Your task to perform on an android device: move an email to a new category in the gmail app Image 0: 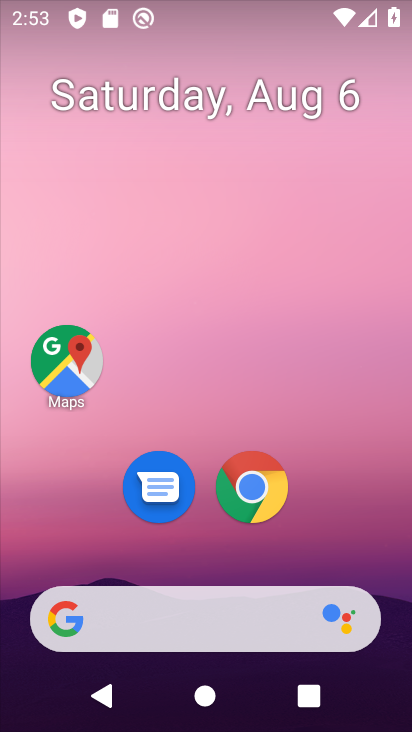
Step 0: drag from (246, 620) to (214, 200)
Your task to perform on an android device: move an email to a new category in the gmail app Image 1: 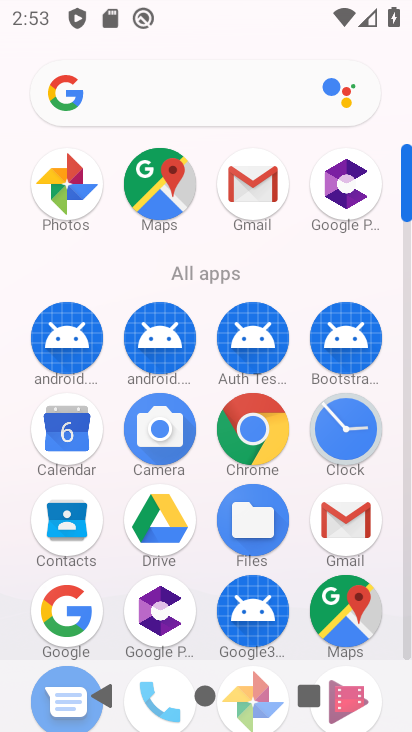
Step 1: click (340, 524)
Your task to perform on an android device: move an email to a new category in the gmail app Image 2: 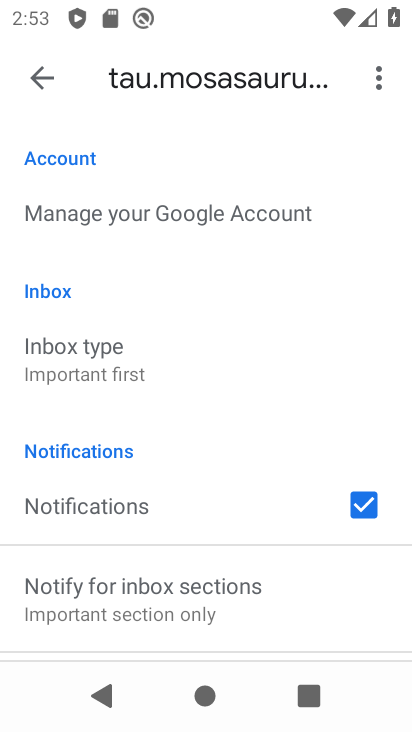
Step 2: click (28, 97)
Your task to perform on an android device: move an email to a new category in the gmail app Image 3: 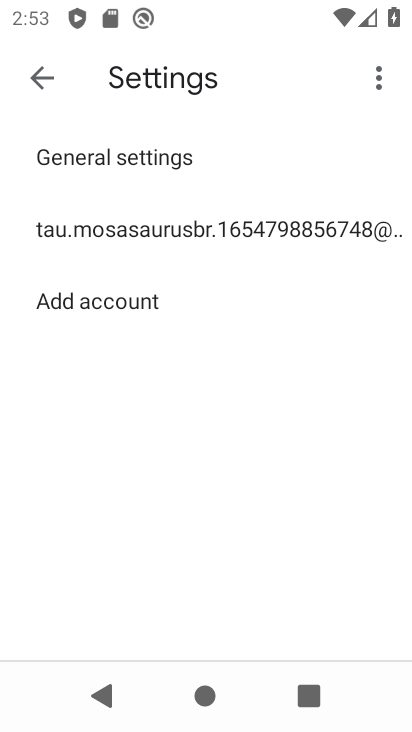
Step 3: click (32, 88)
Your task to perform on an android device: move an email to a new category in the gmail app Image 4: 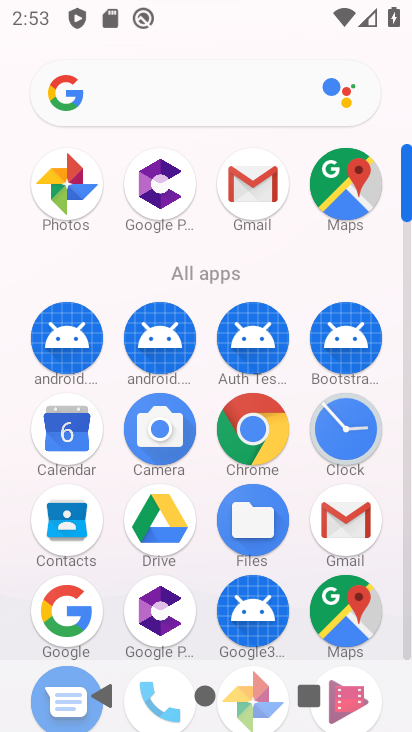
Step 4: click (337, 536)
Your task to perform on an android device: move an email to a new category in the gmail app Image 5: 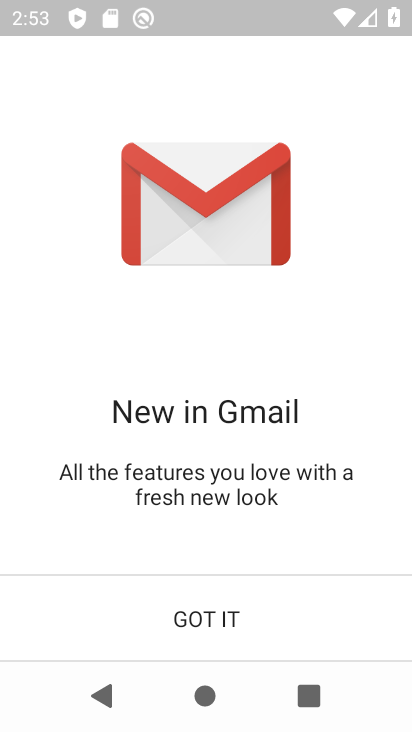
Step 5: drag from (245, 617) to (303, 617)
Your task to perform on an android device: move an email to a new category in the gmail app Image 6: 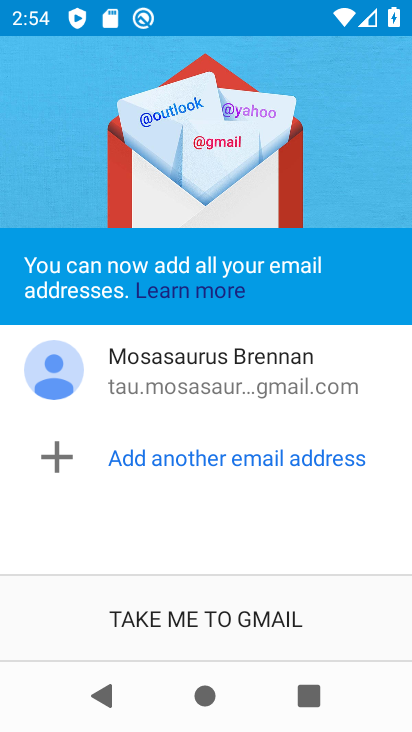
Step 6: click (264, 614)
Your task to perform on an android device: move an email to a new category in the gmail app Image 7: 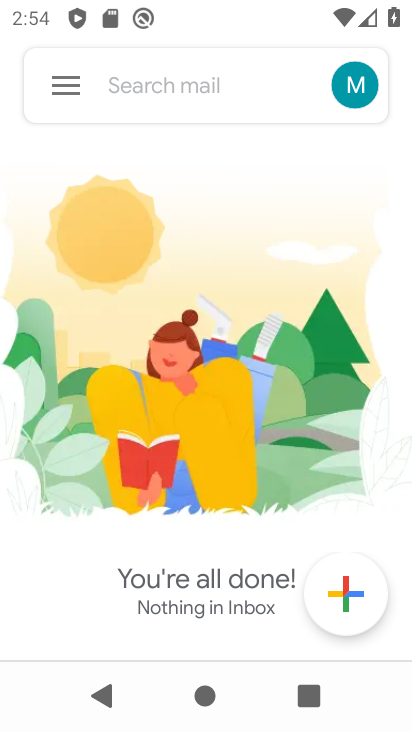
Step 7: click (70, 73)
Your task to perform on an android device: move an email to a new category in the gmail app Image 8: 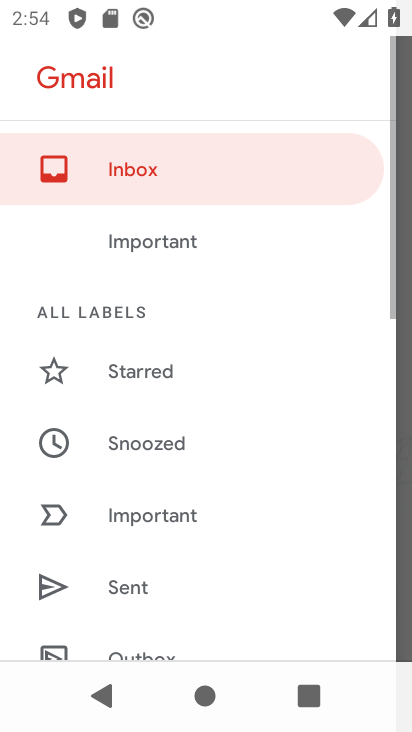
Step 8: drag from (155, 525) to (170, 63)
Your task to perform on an android device: move an email to a new category in the gmail app Image 9: 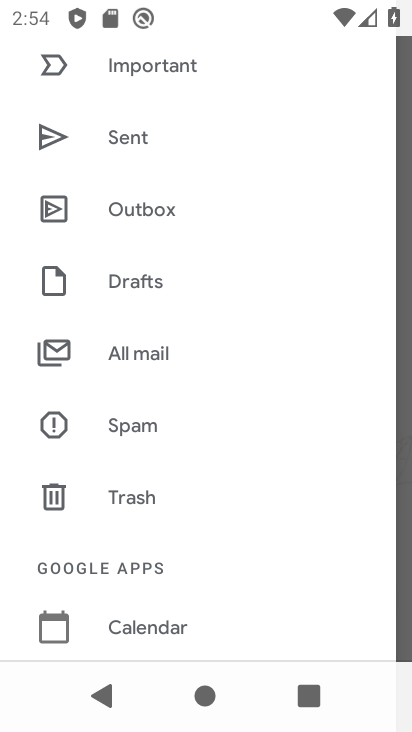
Step 9: click (145, 347)
Your task to perform on an android device: move an email to a new category in the gmail app Image 10: 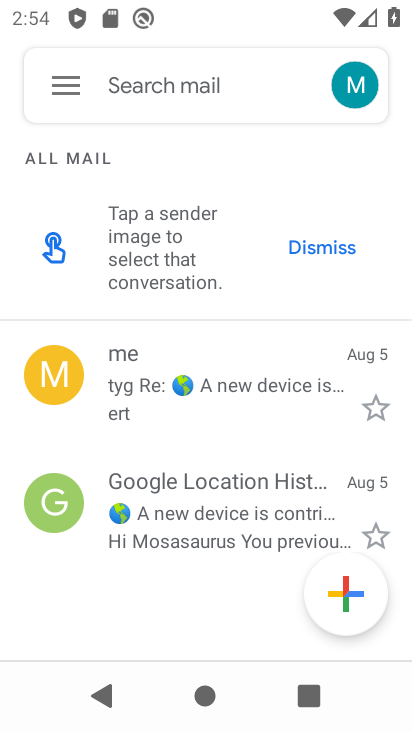
Step 10: click (51, 372)
Your task to perform on an android device: move an email to a new category in the gmail app Image 11: 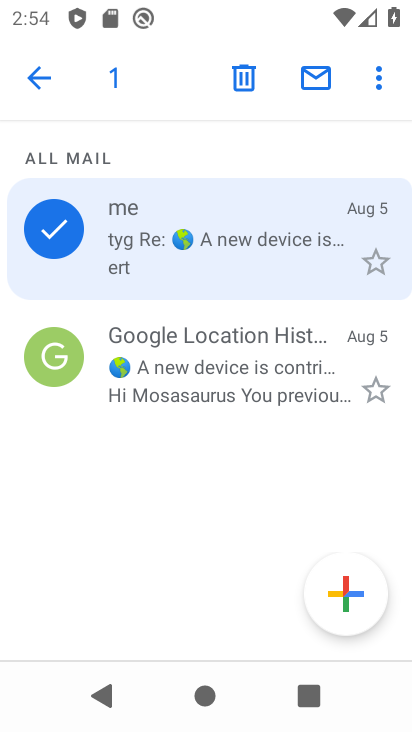
Step 11: click (380, 78)
Your task to perform on an android device: move an email to a new category in the gmail app Image 12: 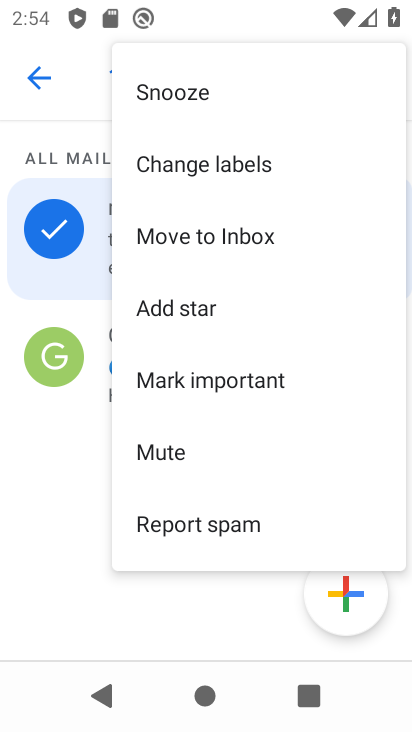
Step 12: click (224, 236)
Your task to perform on an android device: move an email to a new category in the gmail app Image 13: 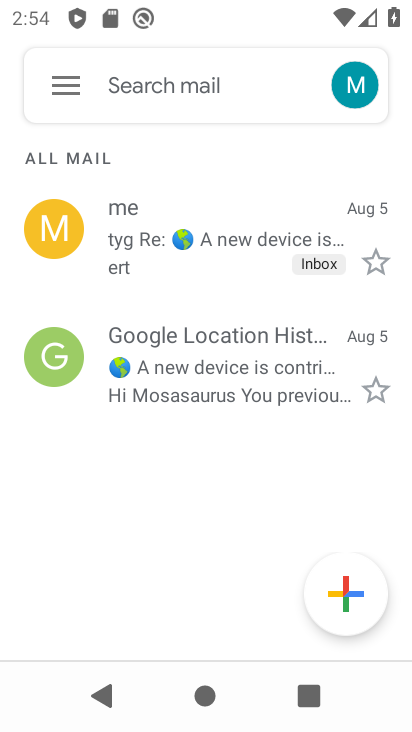
Step 13: task complete